Your task to perform on an android device: Add "corsair k70" to the cart on ebay Image 0: 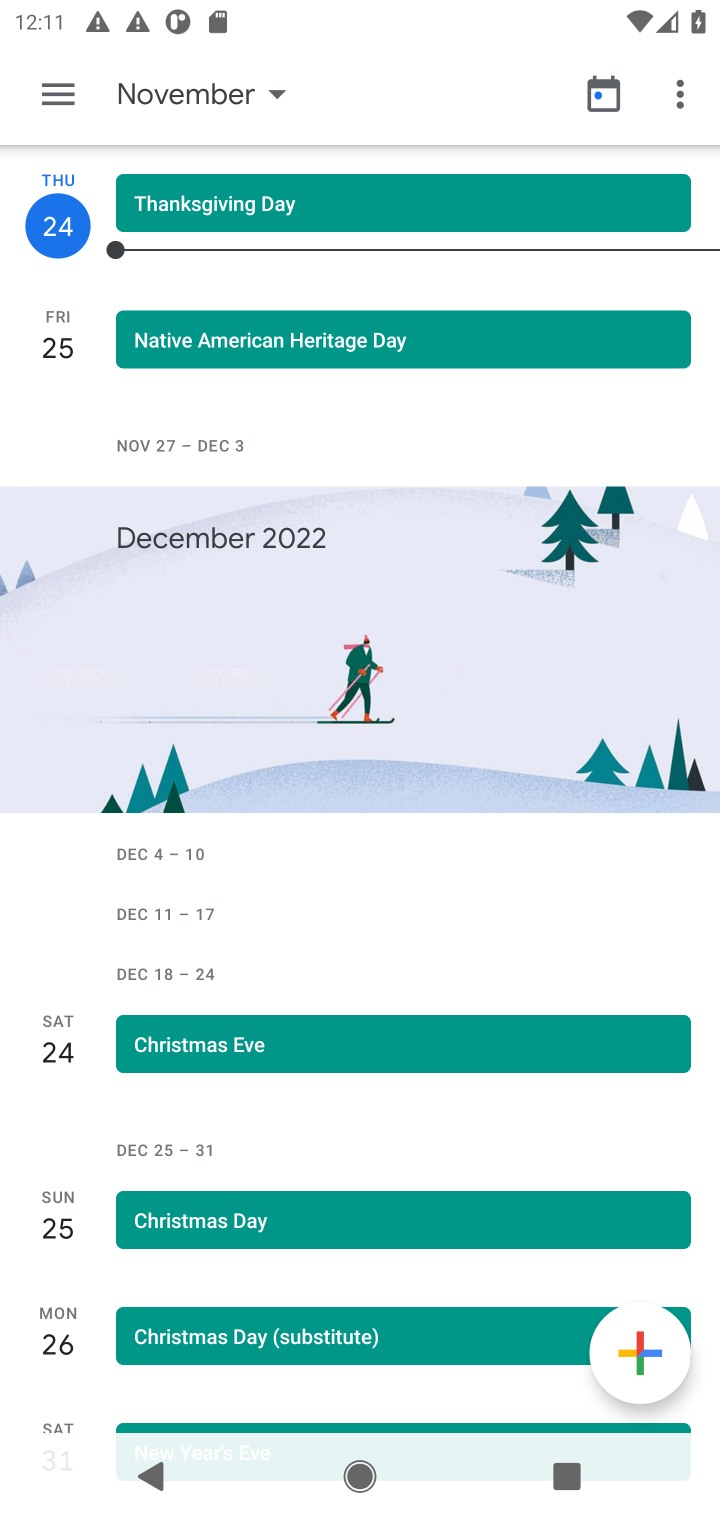
Step 0: press home button
Your task to perform on an android device: Add "corsair k70" to the cart on ebay Image 1: 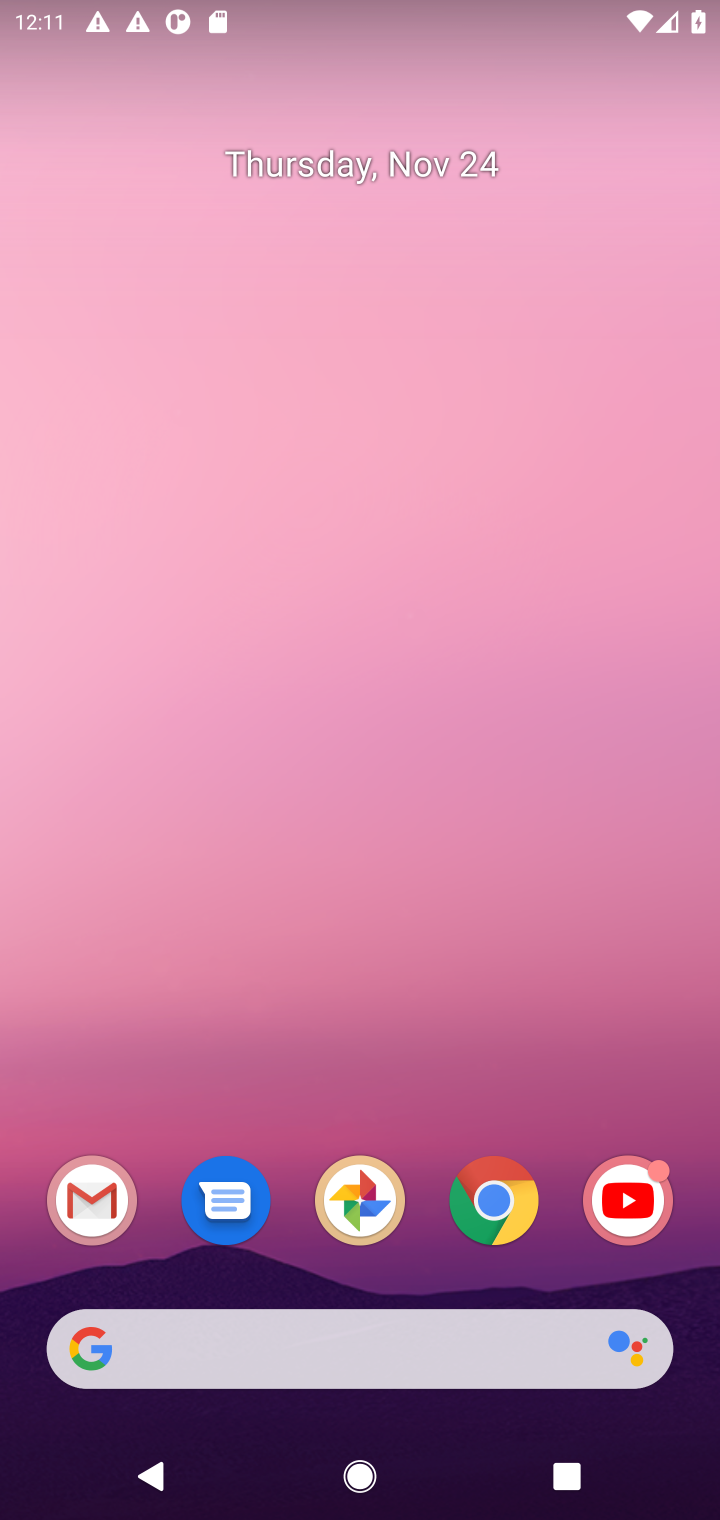
Step 1: click (484, 1368)
Your task to perform on an android device: Add "corsair k70" to the cart on ebay Image 2: 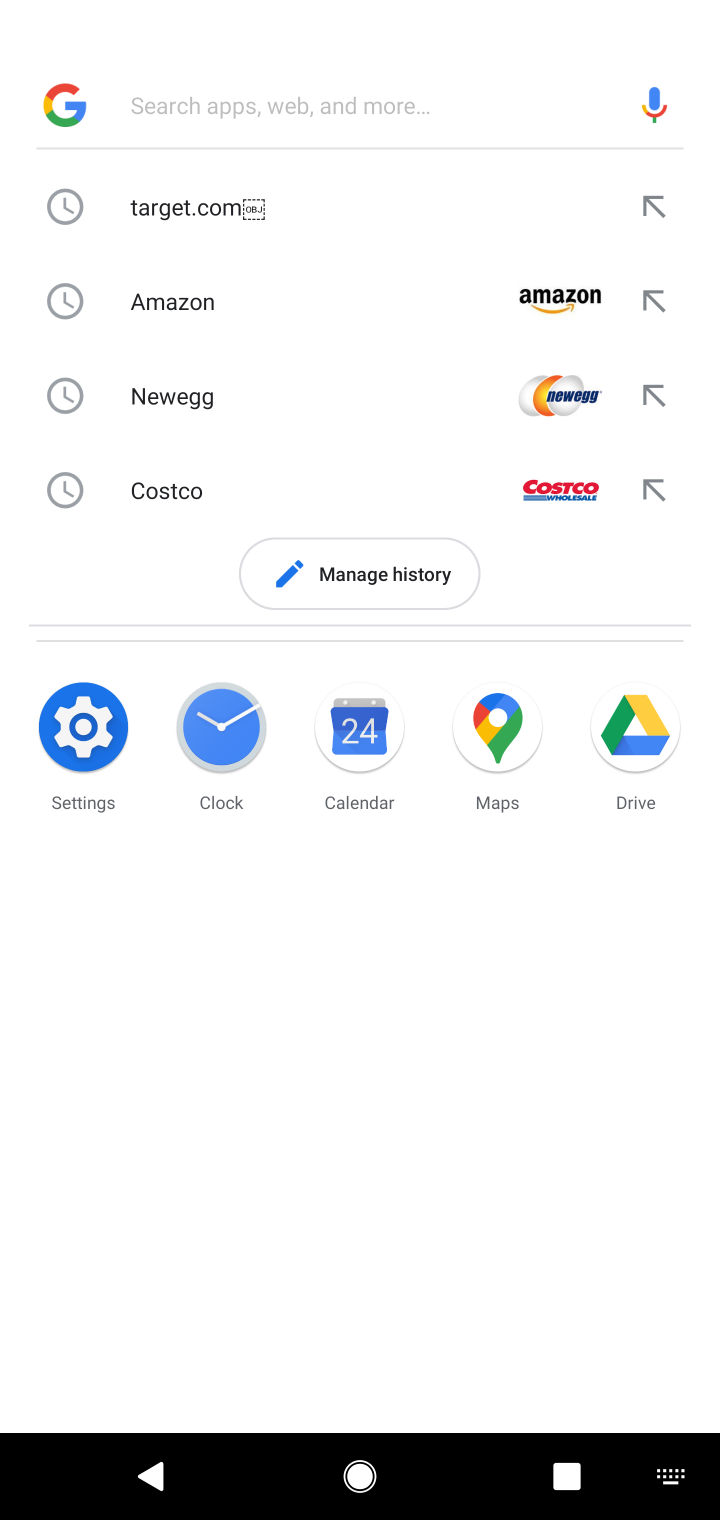
Step 2: type "ebay"
Your task to perform on an android device: Add "corsair k70" to the cart on ebay Image 3: 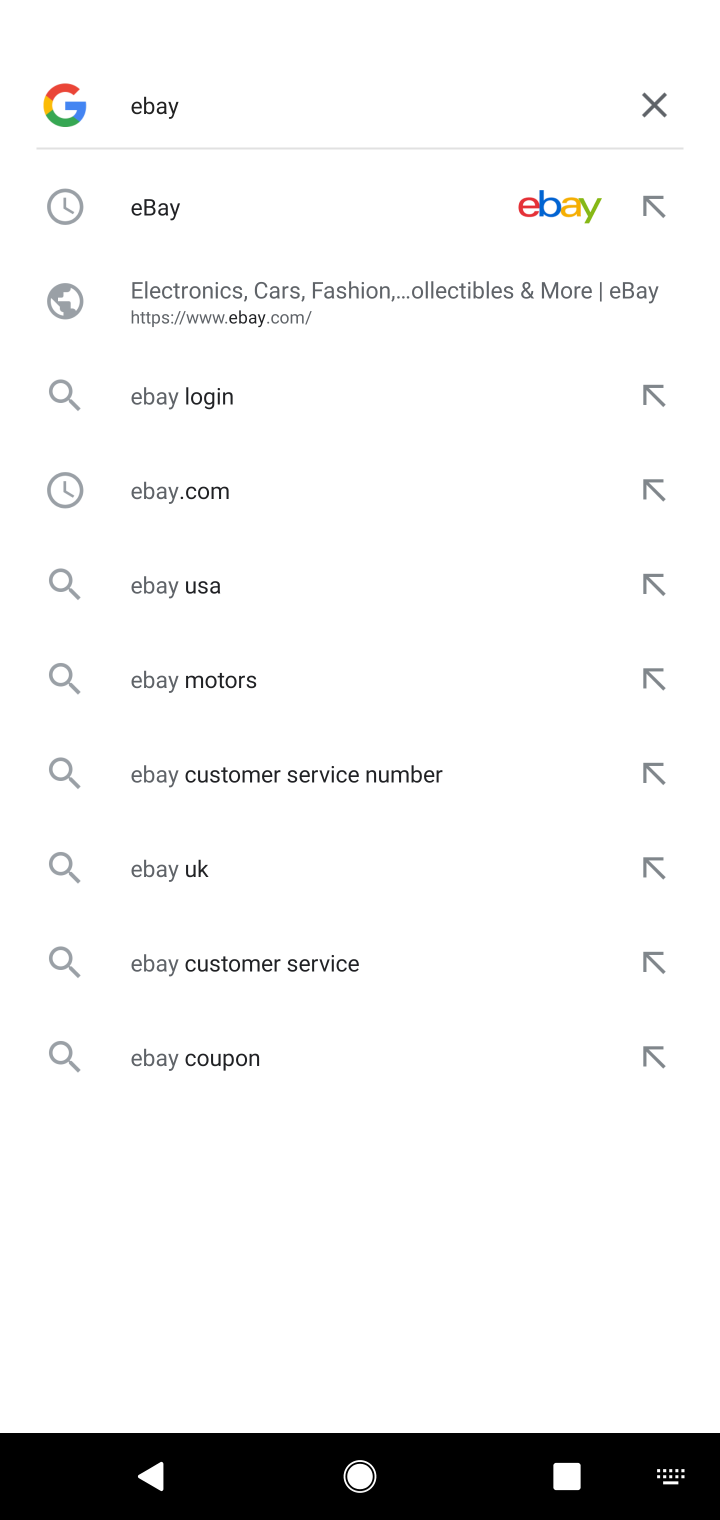
Step 3: click (139, 234)
Your task to perform on an android device: Add "corsair k70" to the cart on ebay Image 4: 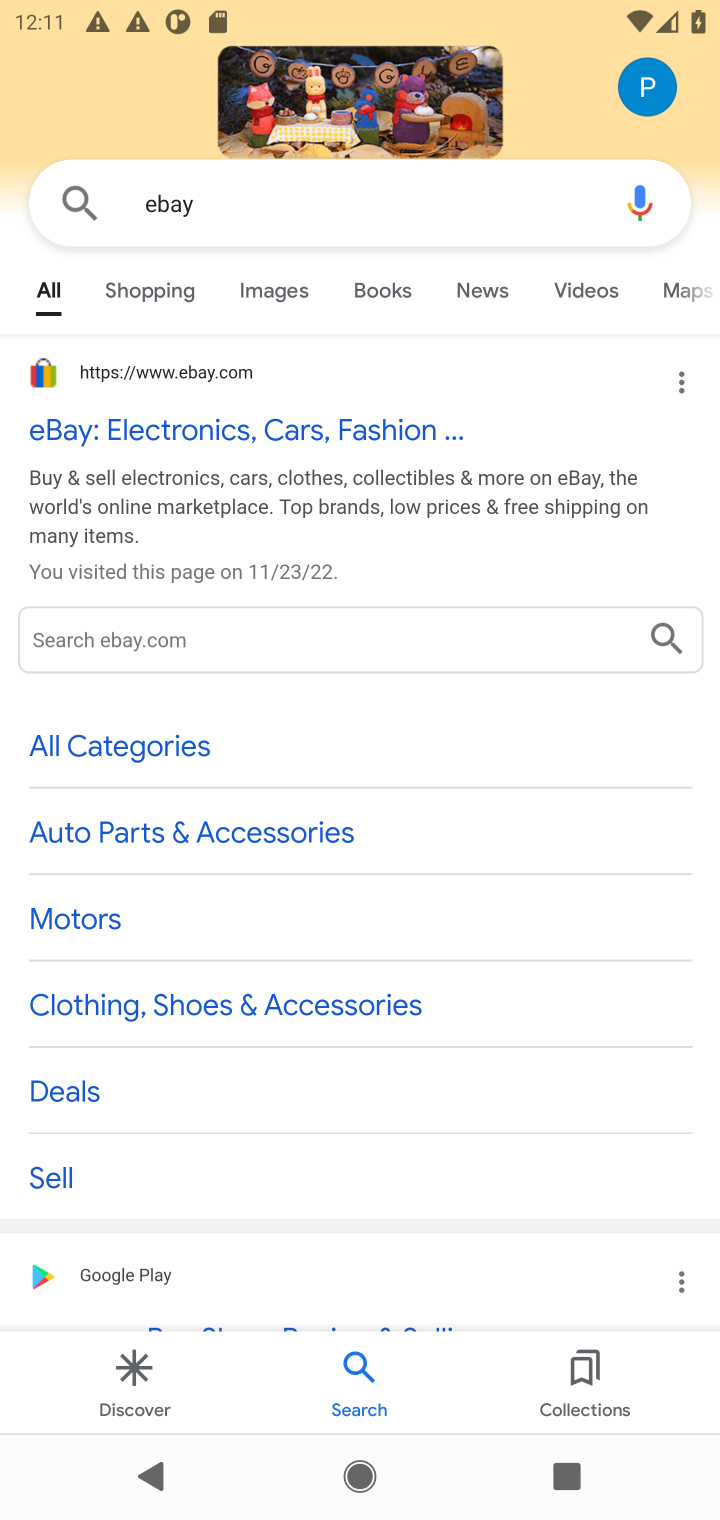
Step 4: click (240, 442)
Your task to perform on an android device: Add "corsair k70" to the cart on ebay Image 5: 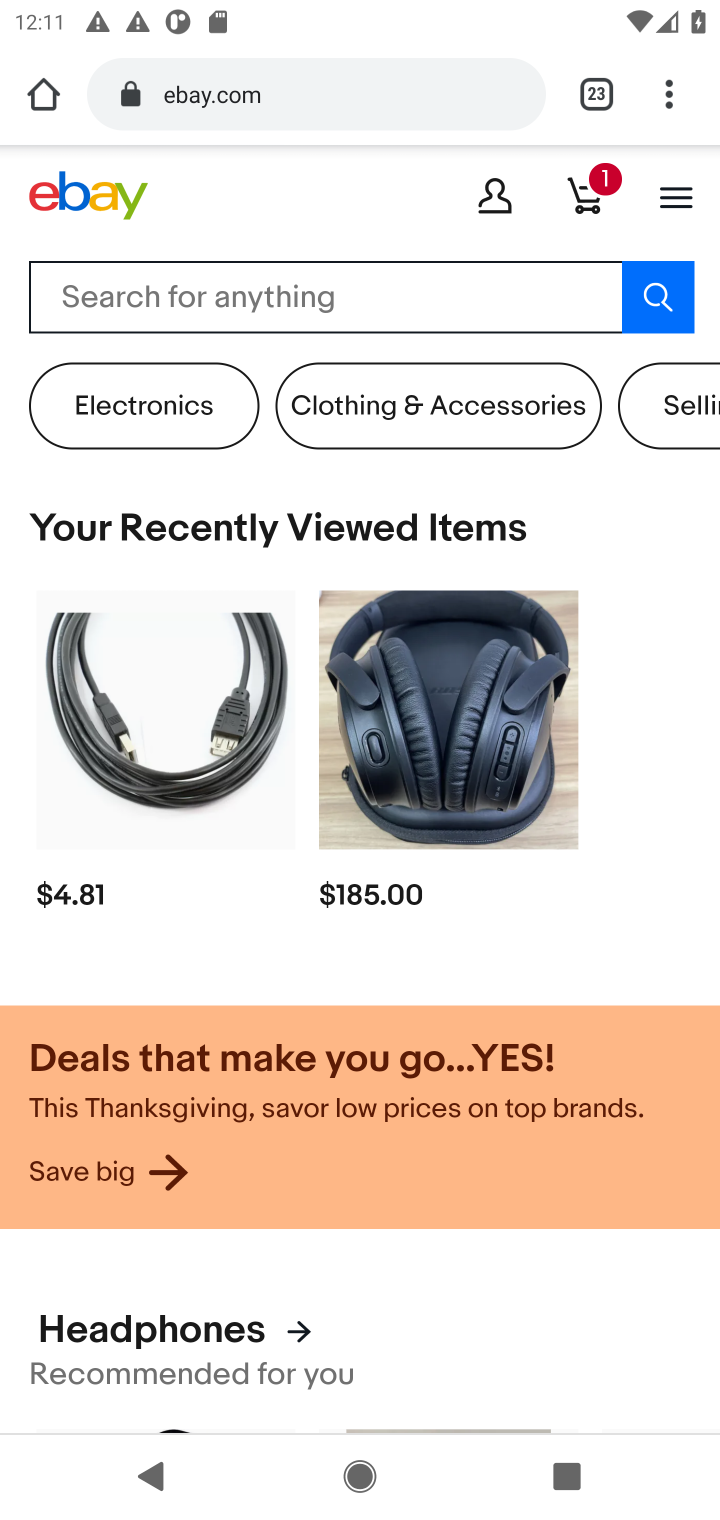
Step 5: click (351, 327)
Your task to perform on an android device: Add "corsair k70" to the cart on ebay Image 6: 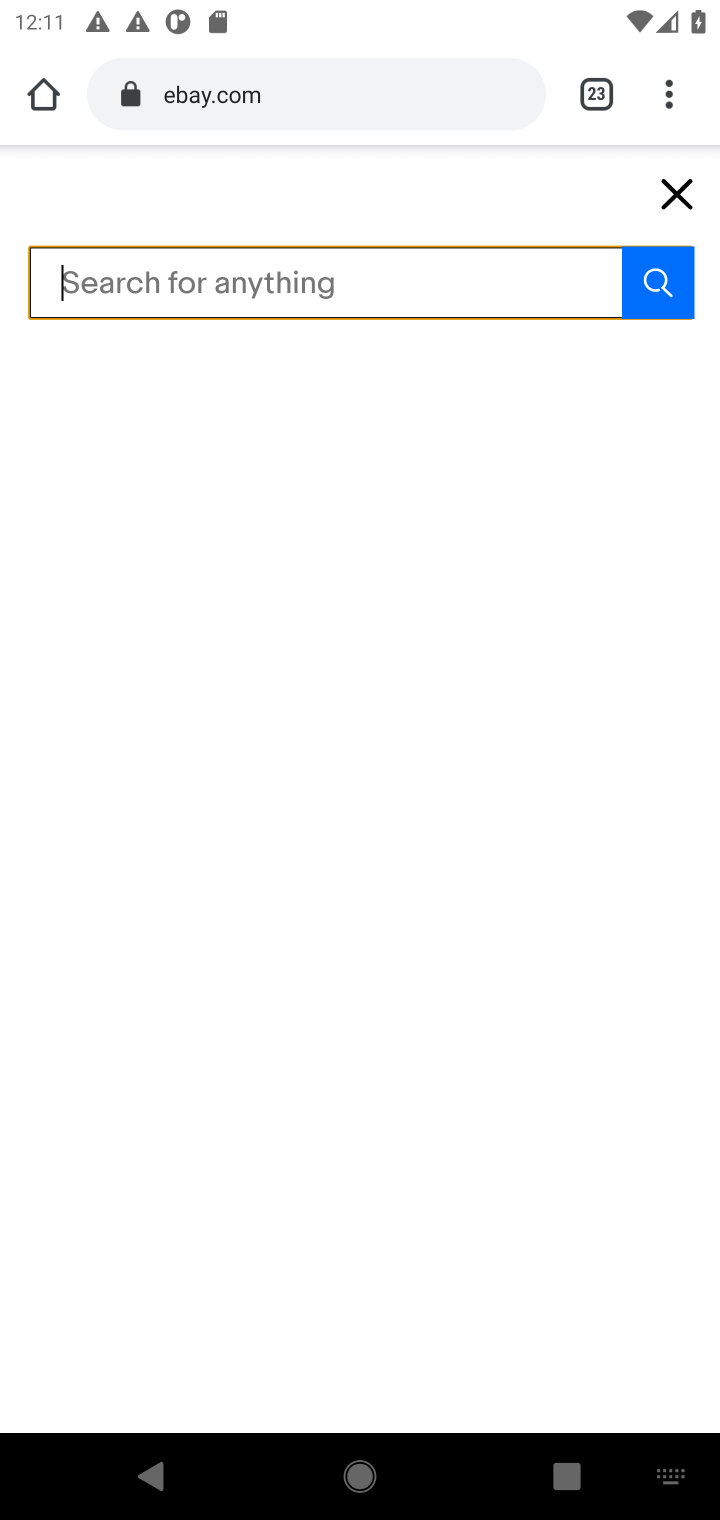
Step 6: type "corsair k 770"
Your task to perform on an android device: Add "corsair k70" to the cart on ebay Image 7: 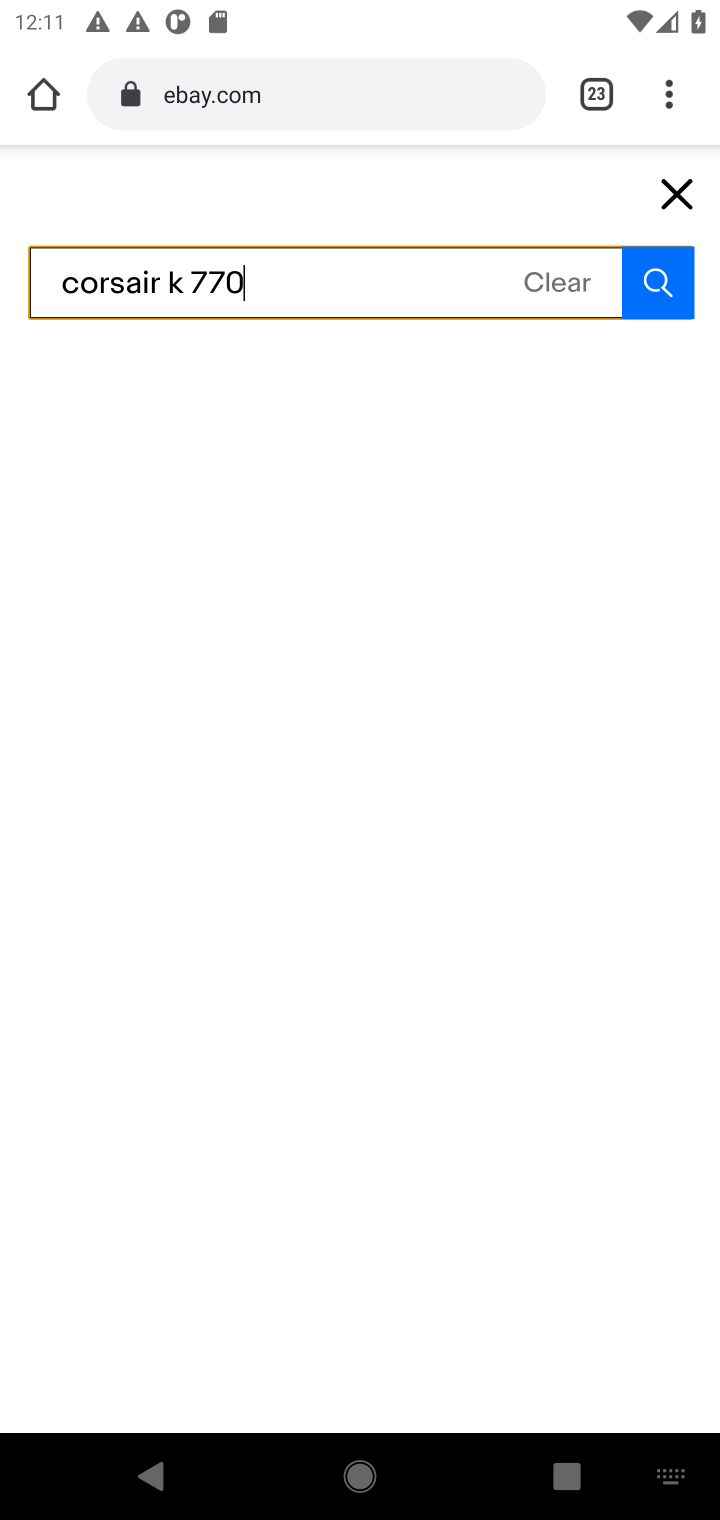
Step 7: click (669, 288)
Your task to perform on an android device: Add "corsair k70" to the cart on ebay Image 8: 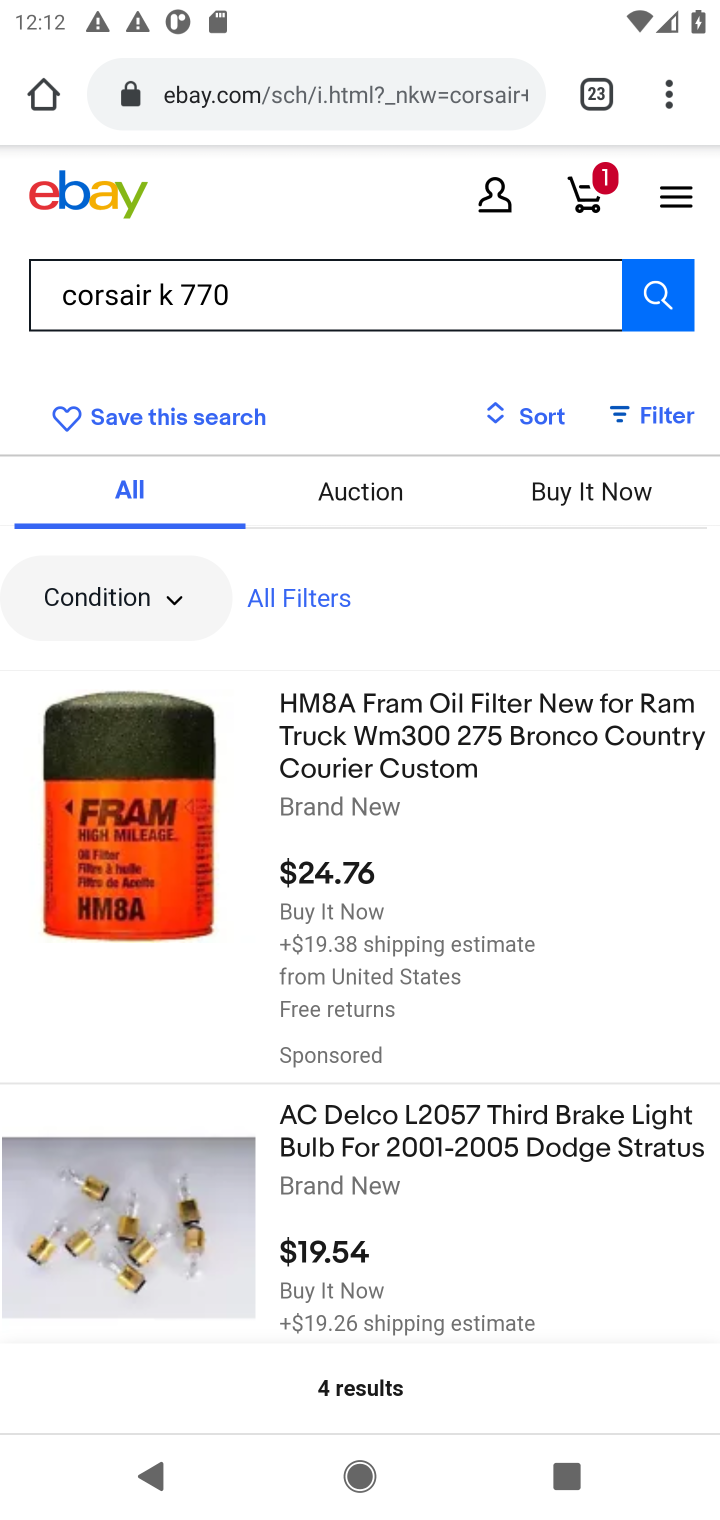
Step 8: task complete